Your task to perform on an android device: make emails show in primary in the gmail app Image 0: 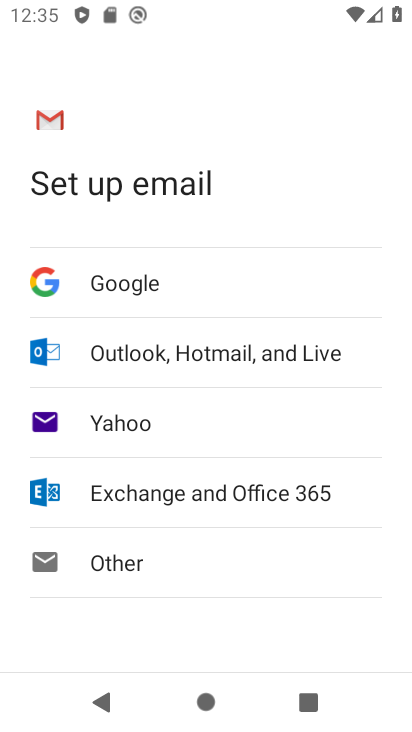
Step 0: press home button
Your task to perform on an android device: make emails show in primary in the gmail app Image 1: 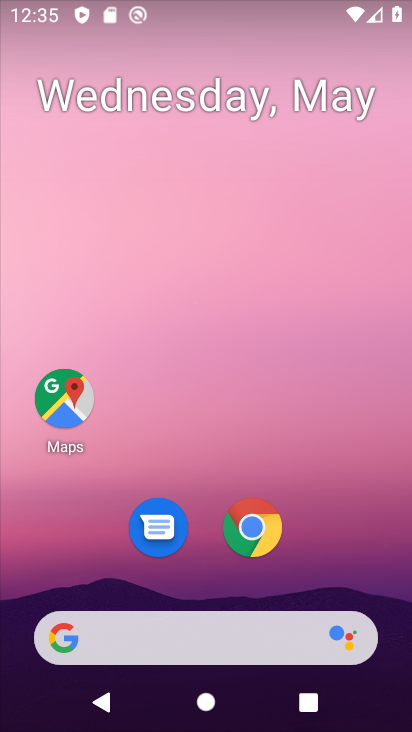
Step 1: drag from (299, 572) to (190, 171)
Your task to perform on an android device: make emails show in primary in the gmail app Image 2: 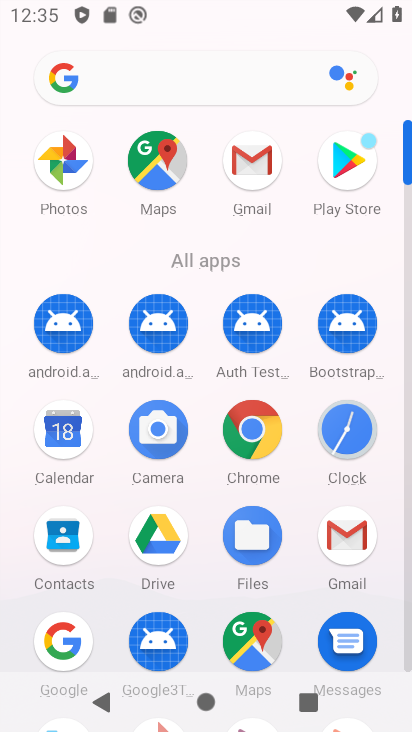
Step 2: click (235, 151)
Your task to perform on an android device: make emails show in primary in the gmail app Image 3: 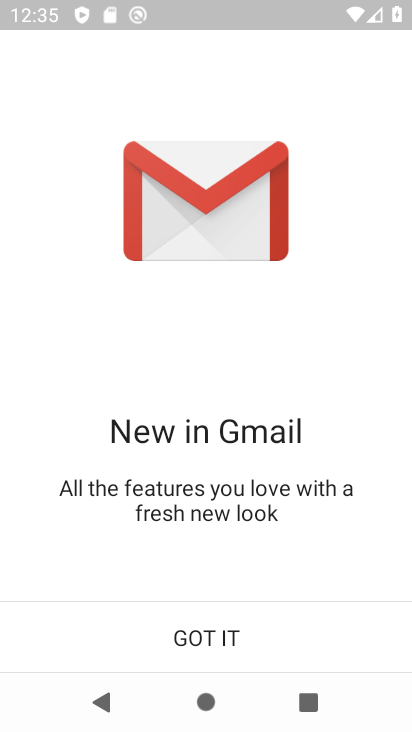
Step 3: click (198, 621)
Your task to perform on an android device: make emails show in primary in the gmail app Image 4: 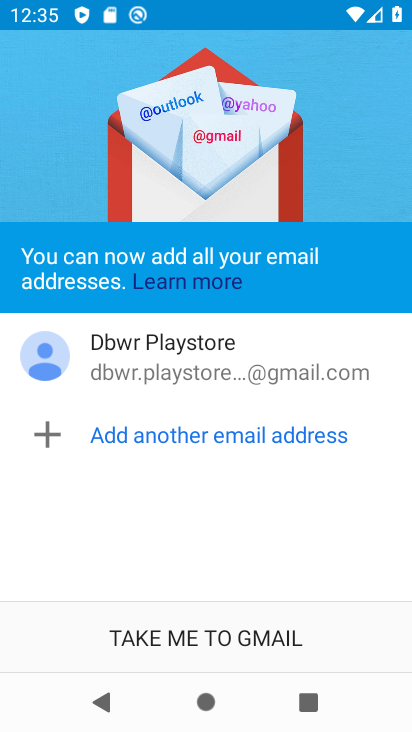
Step 4: click (217, 631)
Your task to perform on an android device: make emails show in primary in the gmail app Image 5: 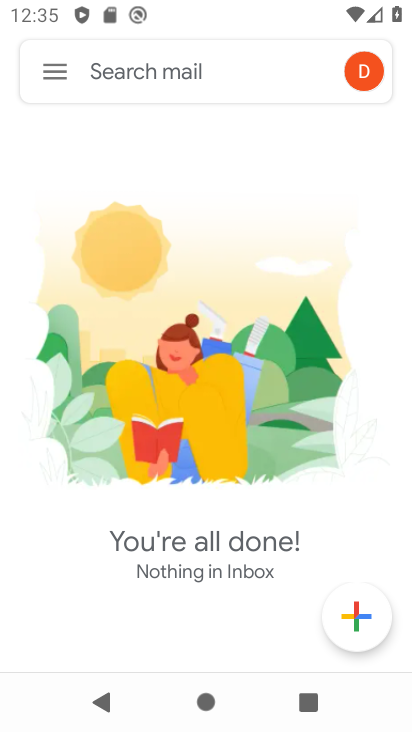
Step 5: click (47, 72)
Your task to perform on an android device: make emails show in primary in the gmail app Image 6: 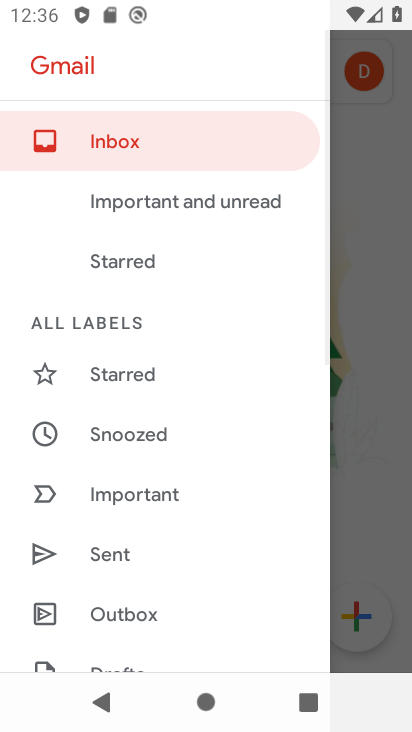
Step 6: drag from (142, 638) to (147, 194)
Your task to perform on an android device: make emails show in primary in the gmail app Image 7: 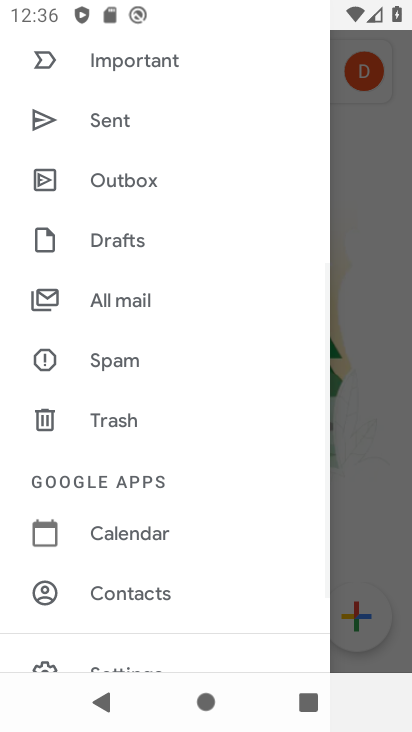
Step 7: drag from (152, 637) to (151, 375)
Your task to perform on an android device: make emails show in primary in the gmail app Image 8: 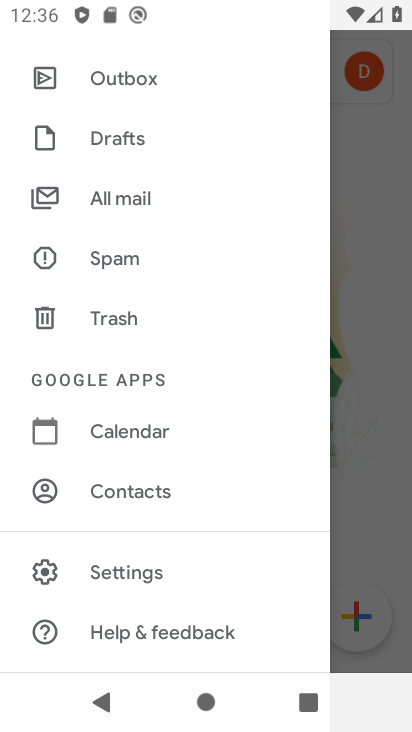
Step 8: click (126, 576)
Your task to perform on an android device: make emails show in primary in the gmail app Image 9: 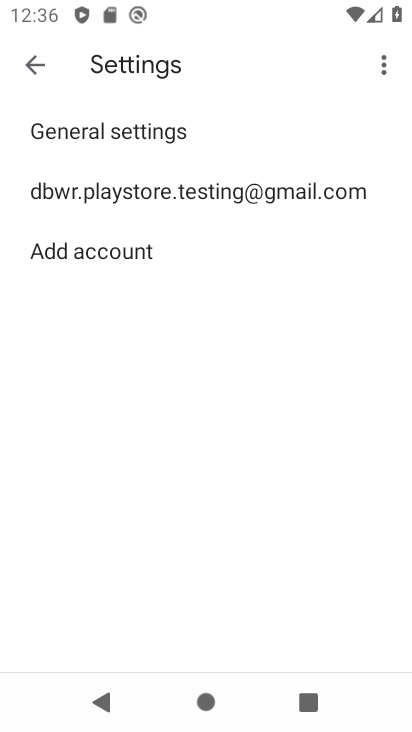
Step 9: click (159, 190)
Your task to perform on an android device: make emails show in primary in the gmail app Image 10: 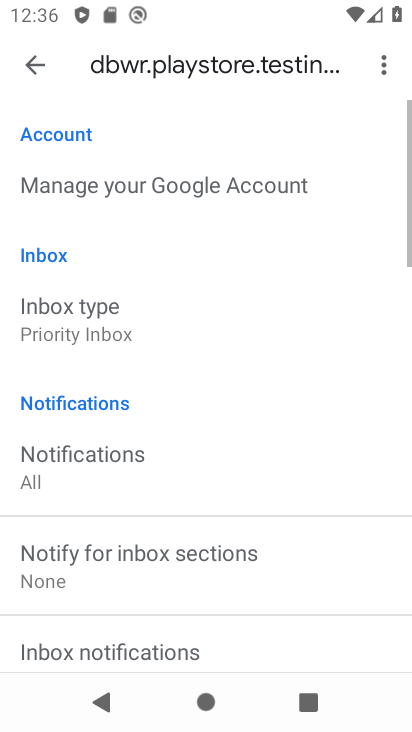
Step 10: click (112, 335)
Your task to perform on an android device: make emails show in primary in the gmail app Image 11: 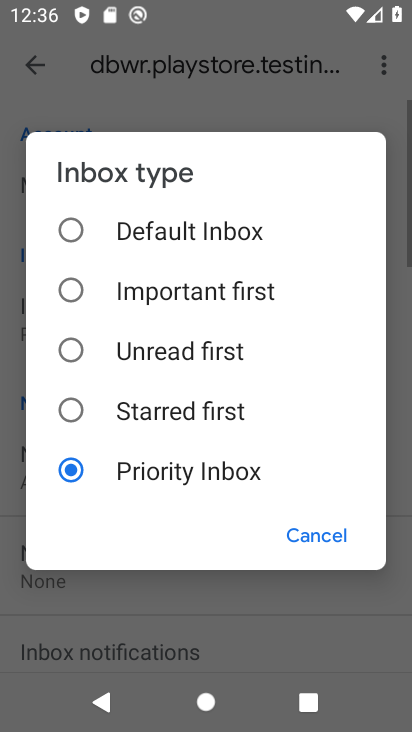
Step 11: click (123, 238)
Your task to perform on an android device: make emails show in primary in the gmail app Image 12: 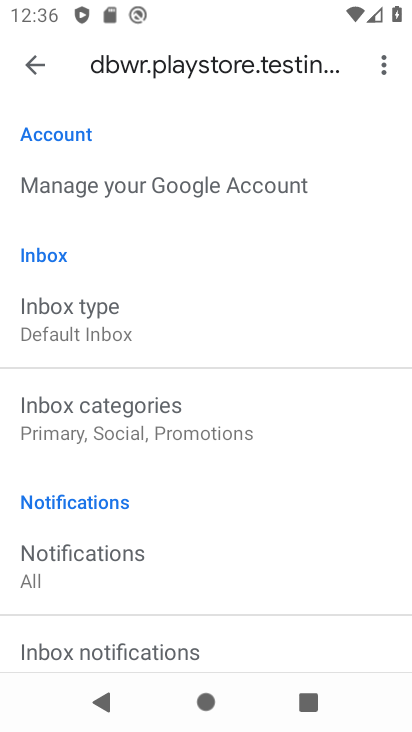
Step 12: click (22, 62)
Your task to perform on an android device: make emails show in primary in the gmail app Image 13: 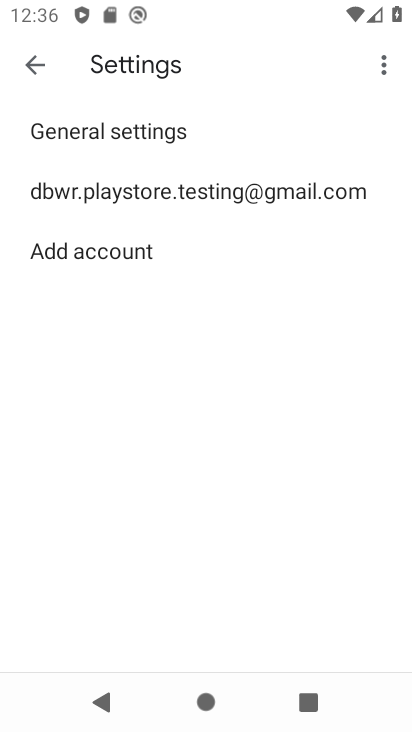
Step 13: click (35, 64)
Your task to perform on an android device: make emails show in primary in the gmail app Image 14: 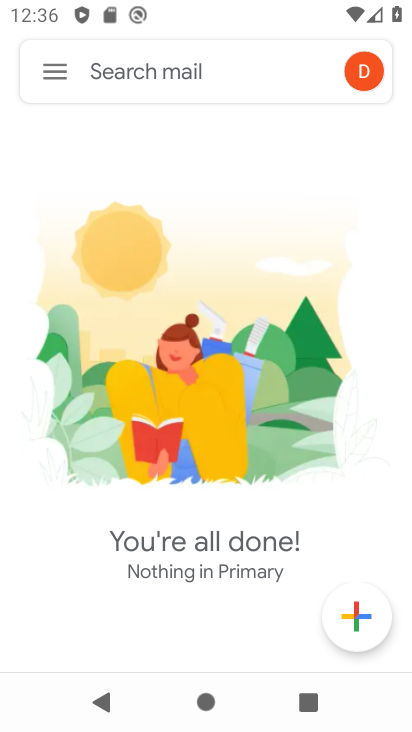
Step 14: click (48, 68)
Your task to perform on an android device: make emails show in primary in the gmail app Image 15: 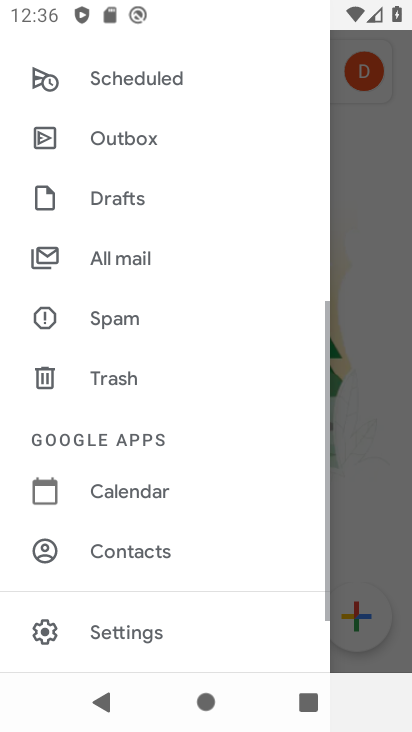
Step 15: task complete